Your task to perform on an android device: turn on the 24-hour format for clock Image 0: 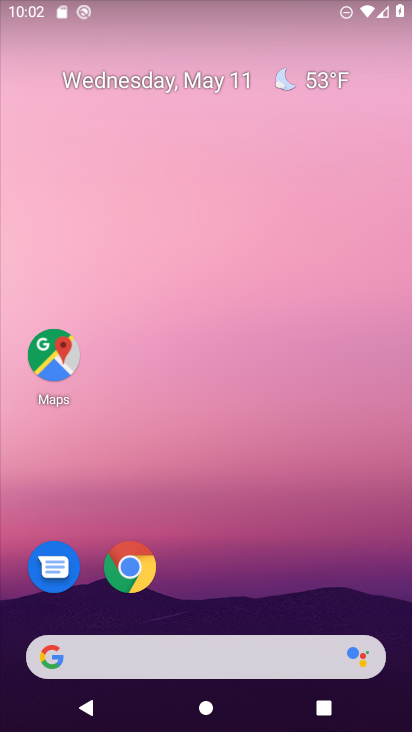
Step 0: drag from (255, 702) to (186, 54)
Your task to perform on an android device: turn on the 24-hour format for clock Image 1: 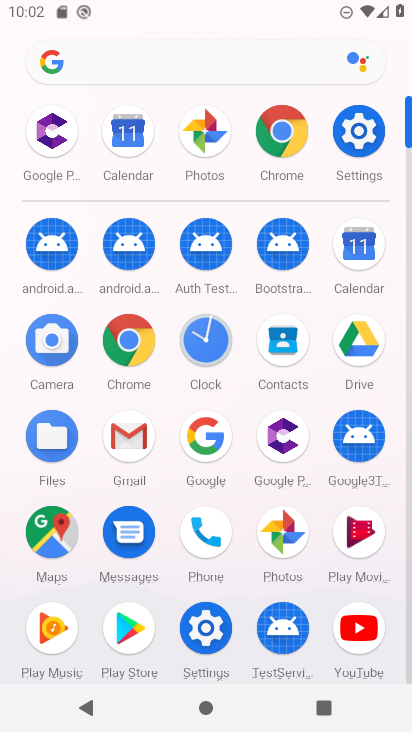
Step 1: click (210, 346)
Your task to perform on an android device: turn on the 24-hour format for clock Image 2: 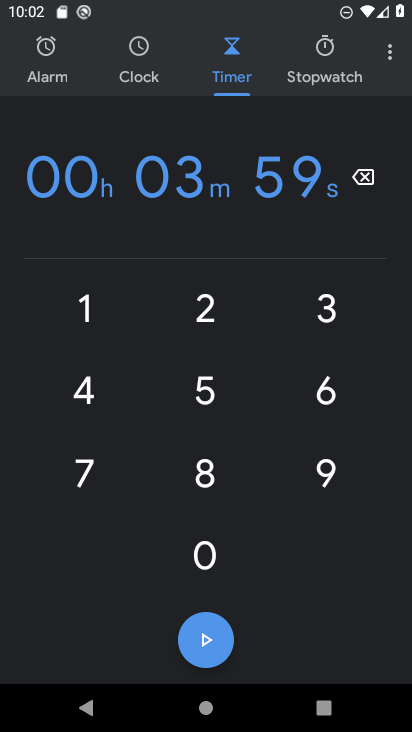
Step 2: click (387, 45)
Your task to perform on an android device: turn on the 24-hour format for clock Image 3: 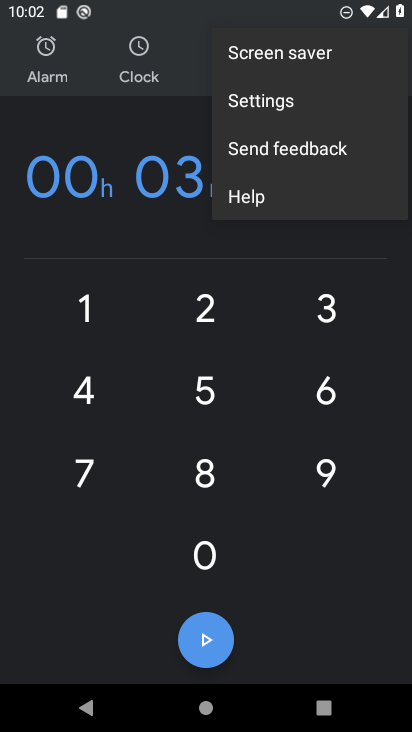
Step 3: click (306, 116)
Your task to perform on an android device: turn on the 24-hour format for clock Image 4: 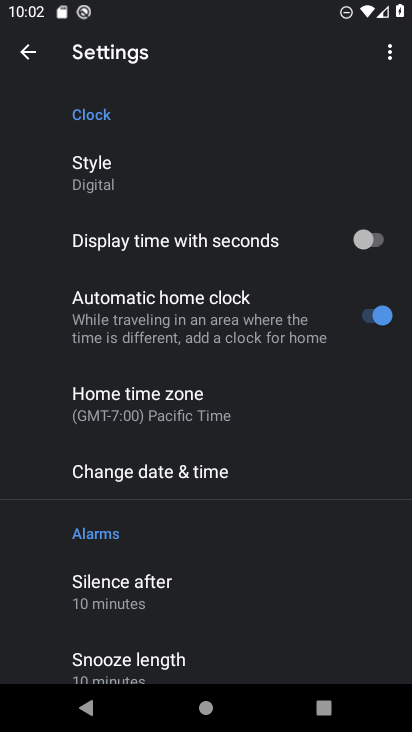
Step 4: click (222, 477)
Your task to perform on an android device: turn on the 24-hour format for clock Image 5: 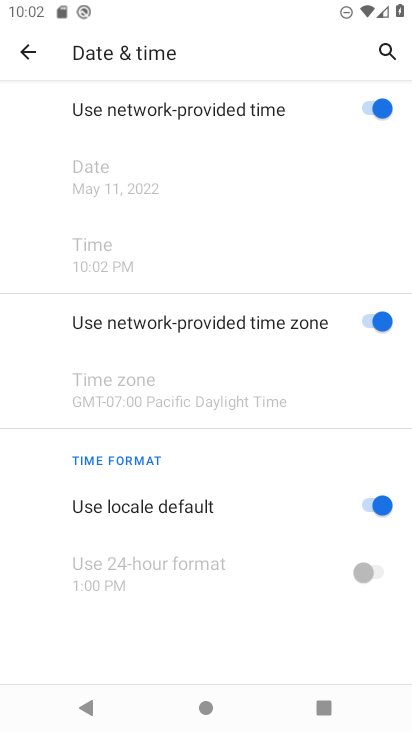
Step 5: click (383, 505)
Your task to perform on an android device: turn on the 24-hour format for clock Image 6: 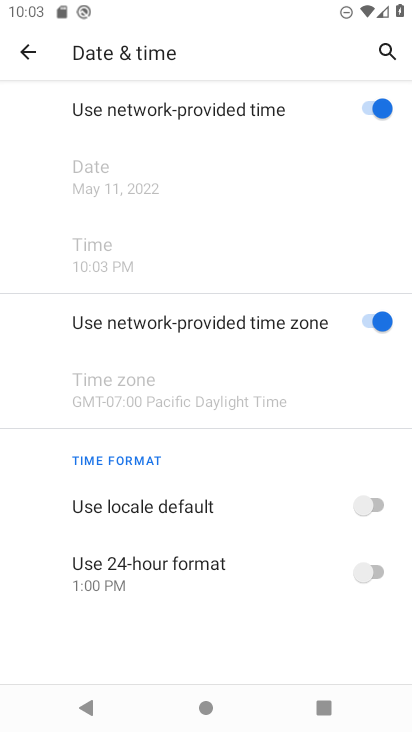
Step 6: click (377, 568)
Your task to perform on an android device: turn on the 24-hour format for clock Image 7: 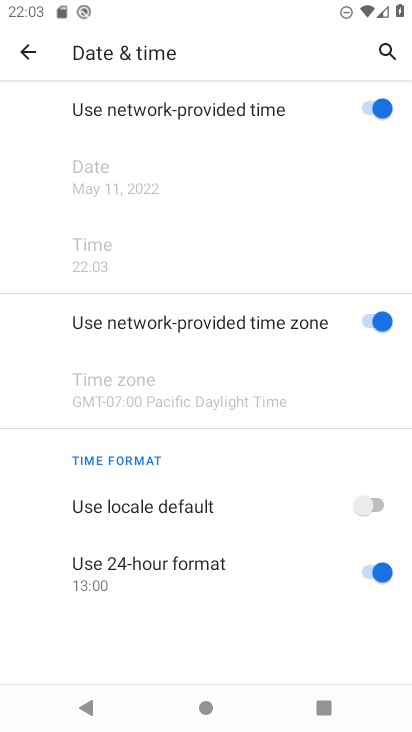
Step 7: task complete